Your task to perform on an android device: Go to Wikipedia Image 0: 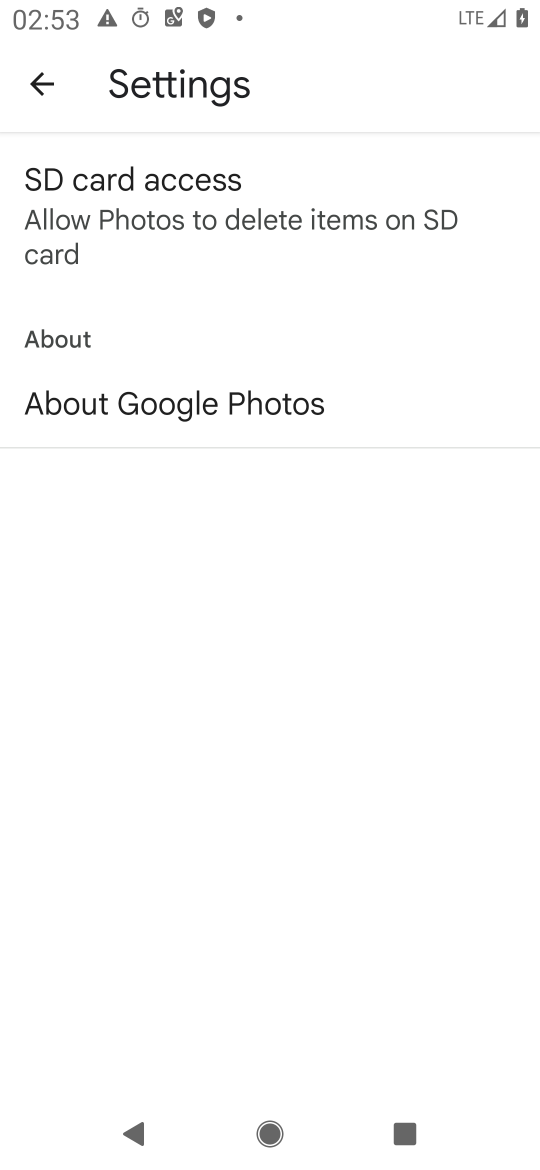
Step 0: press home button
Your task to perform on an android device: Go to Wikipedia Image 1: 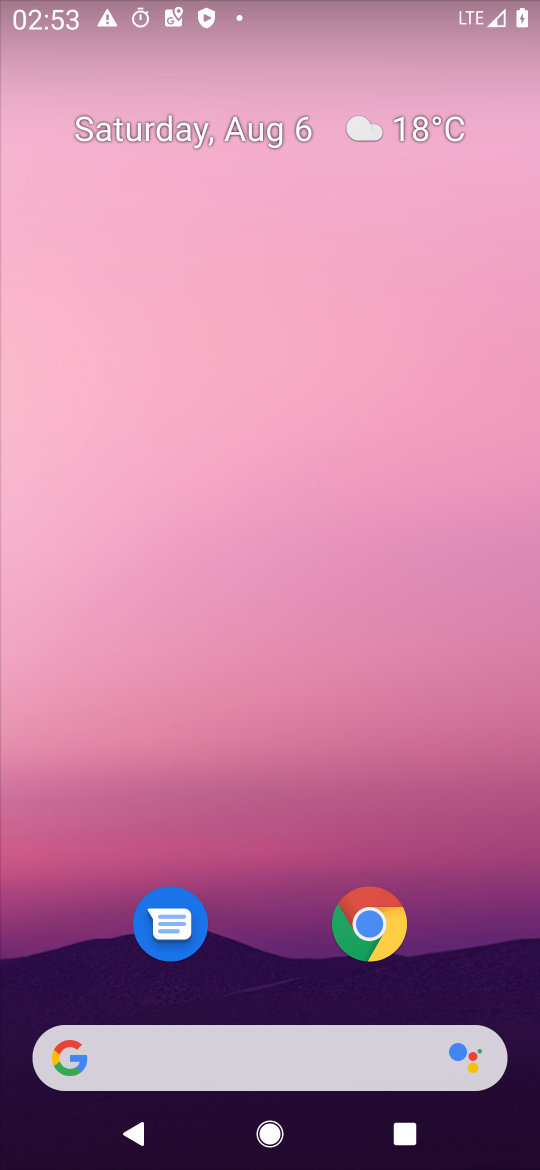
Step 1: drag from (258, 1058) to (313, 92)
Your task to perform on an android device: Go to Wikipedia Image 2: 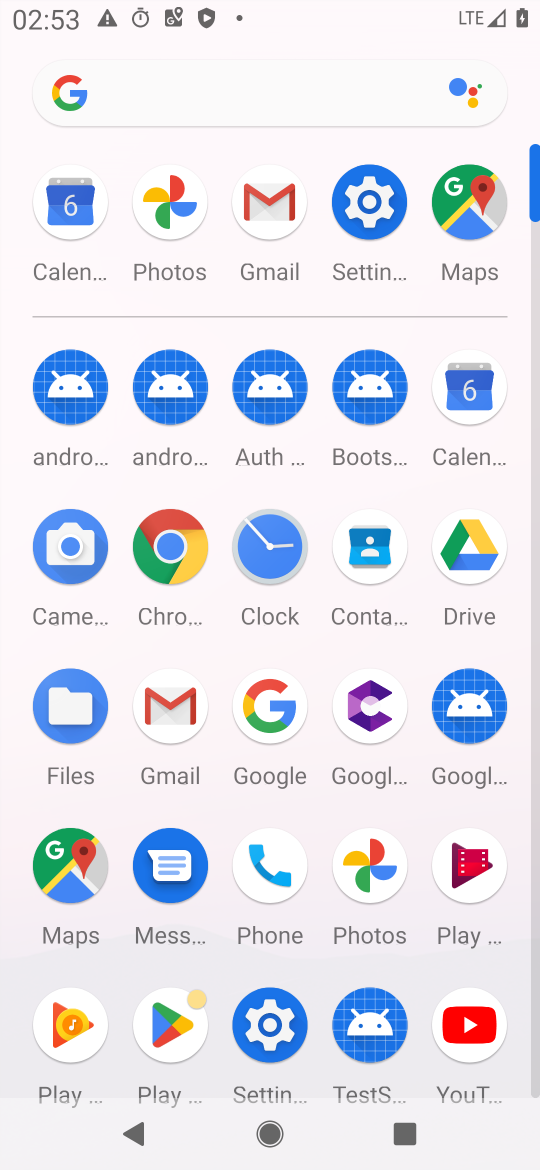
Step 2: click (155, 532)
Your task to perform on an android device: Go to Wikipedia Image 3: 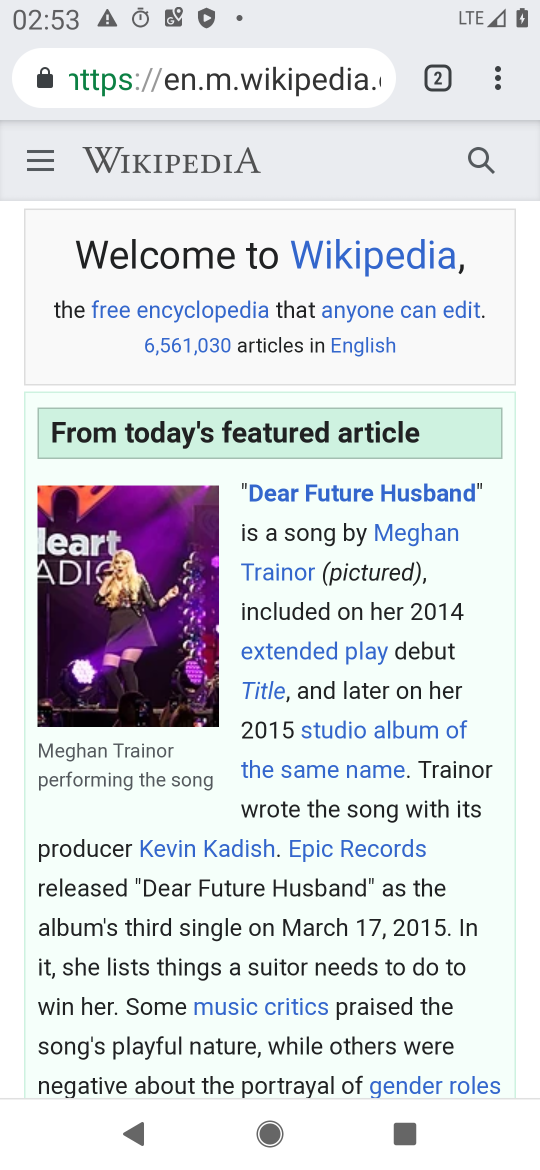
Step 3: task complete